Your task to perform on an android device: Go to location settings Image 0: 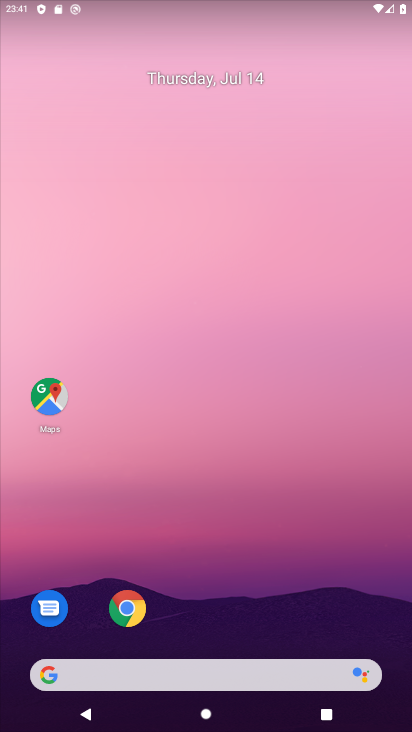
Step 0: drag from (26, 705) to (272, 19)
Your task to perform on an android device: Go to location settings Image 1: 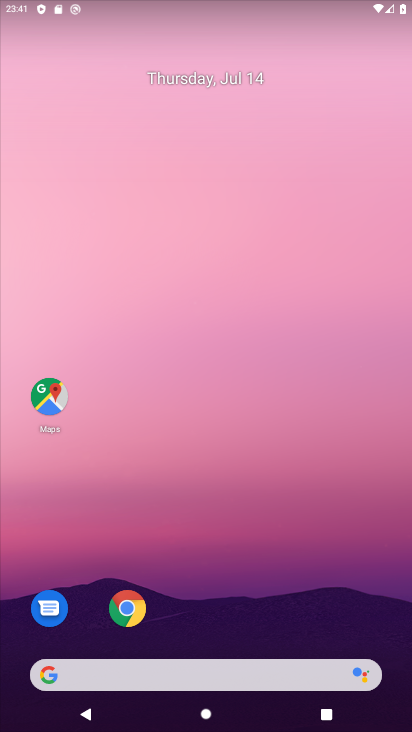
Step 1: drag from (40, 715) to (254, 8)
Your task to perform on an android device: Go to location settings Image 2: 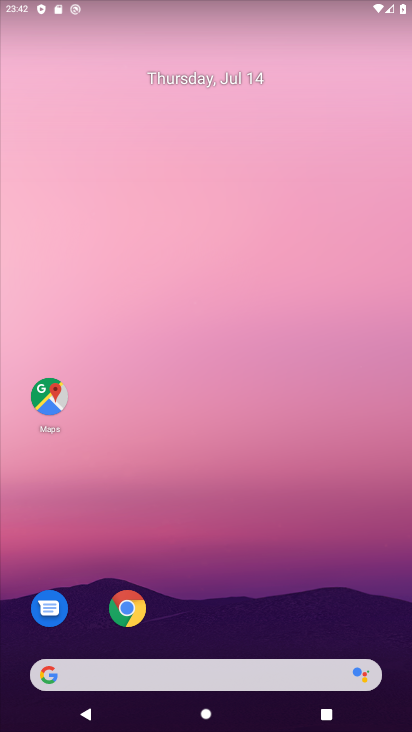
Step 2: drag from (52, 689) to (225, 0)
Your task to perform on an android device: Go to location settings Image 3: 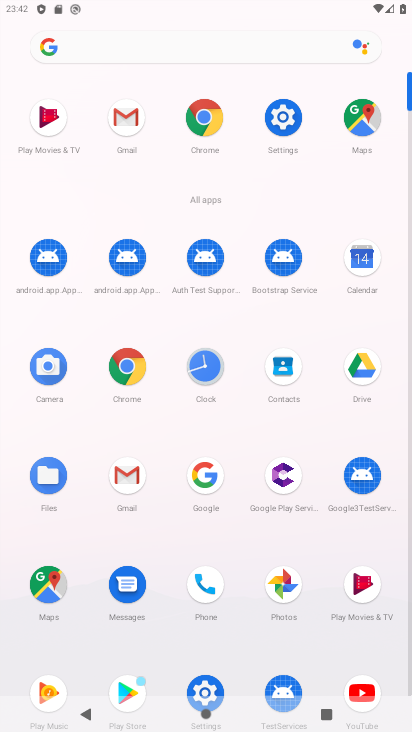
Step 3: click (196, 693)
Your task to perform on an android device: Go to location settings Image 4: 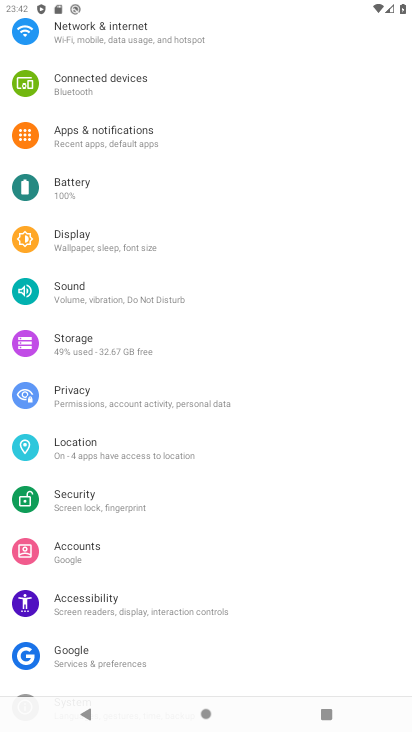
Step 4: click (73, 441)
Your task to perform on an android device: Go to location settings Image 5: 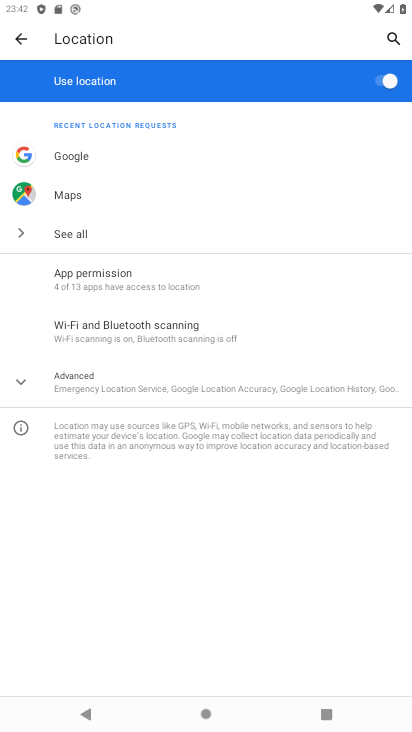
Step 5: task complete